Your task to perform on an android device: delete browsing data in the chrome app Image 0: 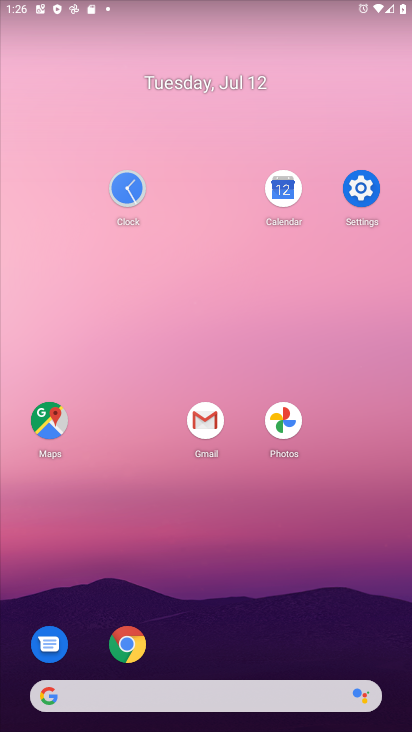
Step 0: click (114, 646)
Your task to perform on an android device: delete browsing data in the chrome app Image 1: 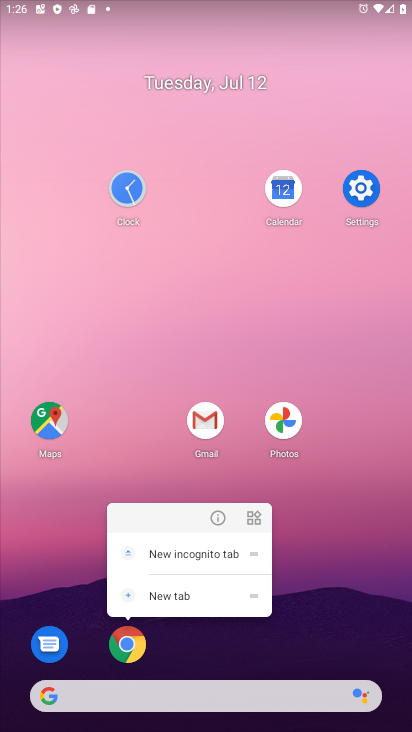
Step 1: click (142, 652)
Your task to perform on an android device: delete browsing data in the chrome app Image 2: 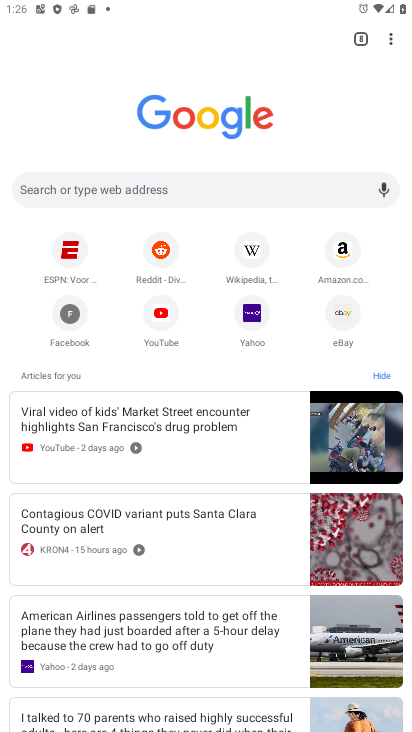
Step 2: click (391, 41)
Your task to perform on an android device: delete browsing data in the chrome app Image 3: 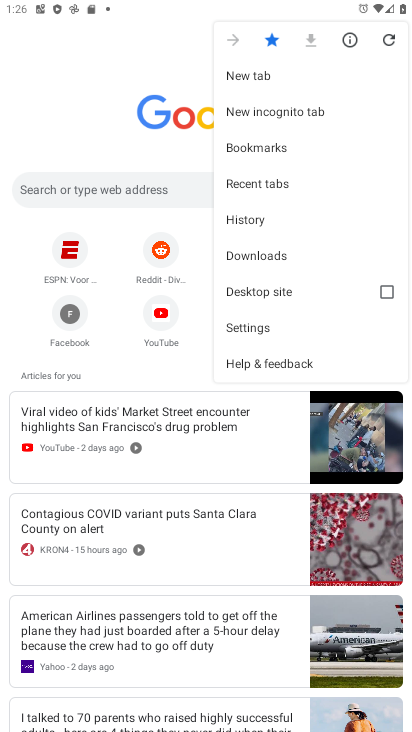
Step 3: click (237, 320)
Your task to perform on an android device: delete browsing data in the chrome app Image 4: 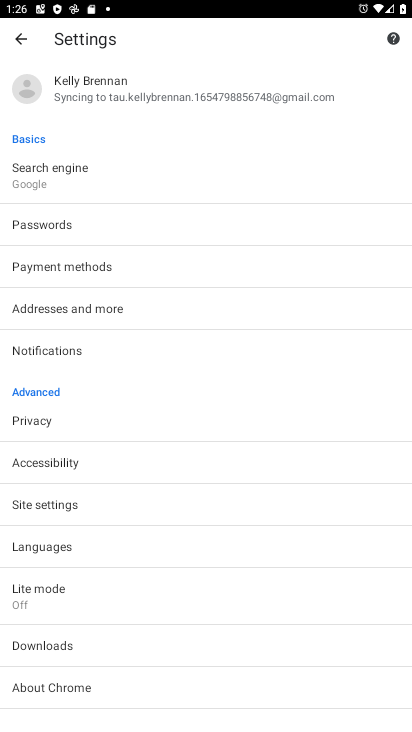
Step 4: click (35, 429)
Your task to perform on an android device: delete browsing data in the chrome app Image 5: 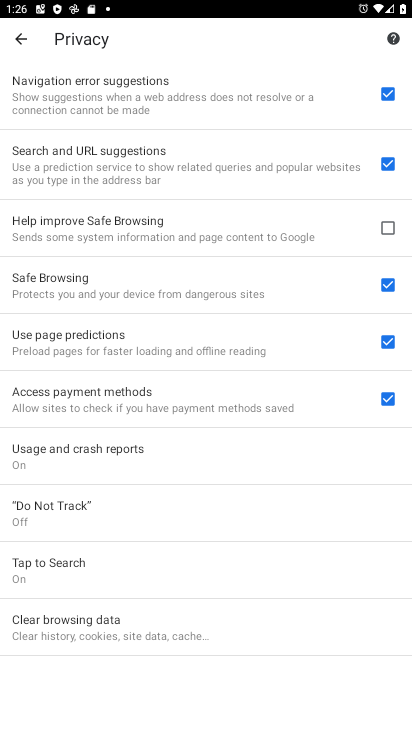
Step 5: click (235, 632)
Your task to perform on an android device: delete browsing data in the chrome app Image 6: 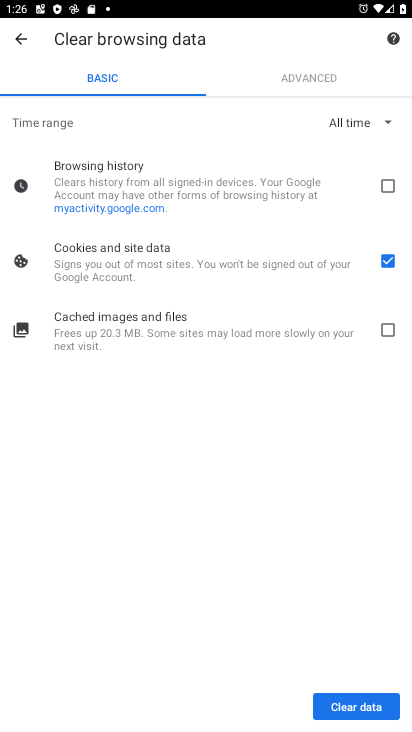
Step 6: click (336, 675)
Your task to perform on an android device: delete browsing data in the chrome app Image 7: 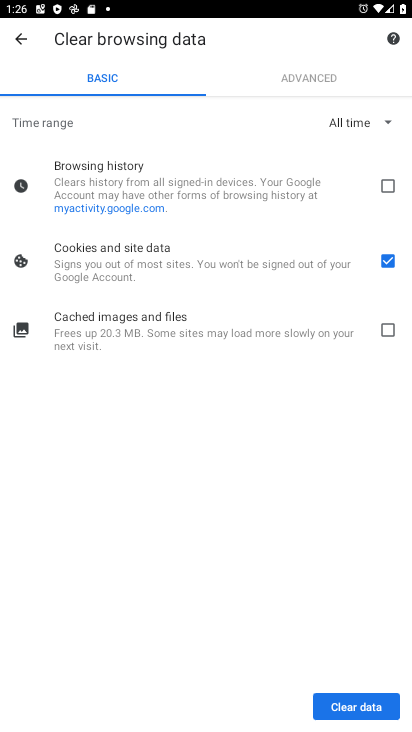
Step 7: click (354, 699)
Your task to perform on an android device: delete browsing data in the chrome app Image 8: 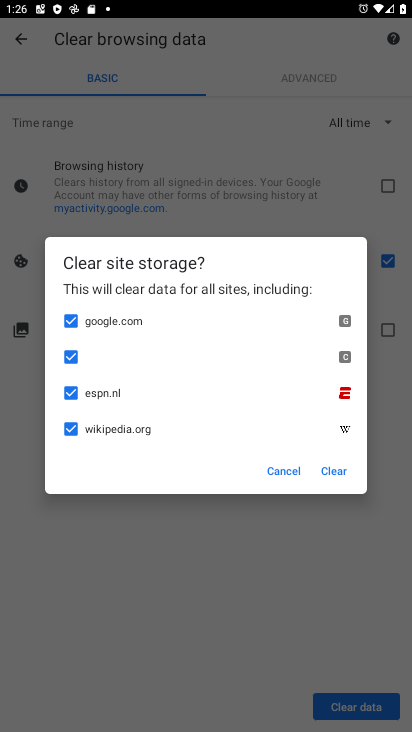
Step 8: click (341, 486)
Your task to perform on an android device: delete browsing data in the chrome app Image 9: 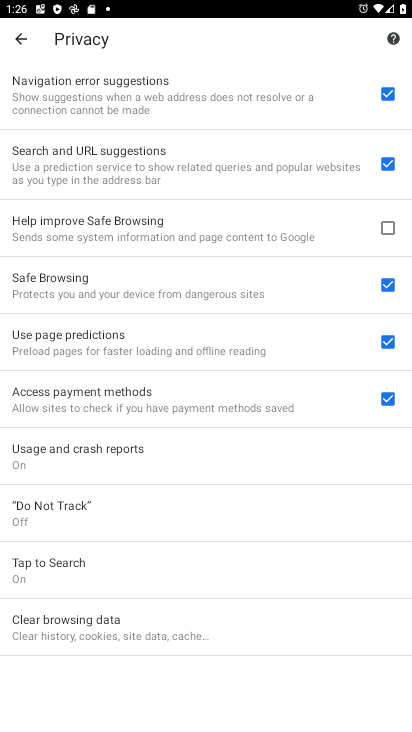
Step 9: task complete